Your task to perform on an android device: turn on location history Image 0: 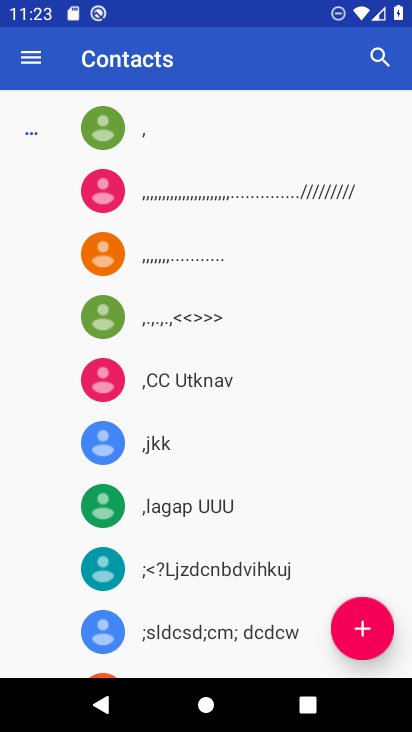
Step 0: press back button
Your task to perform on an android device: turn on location history Image 1: 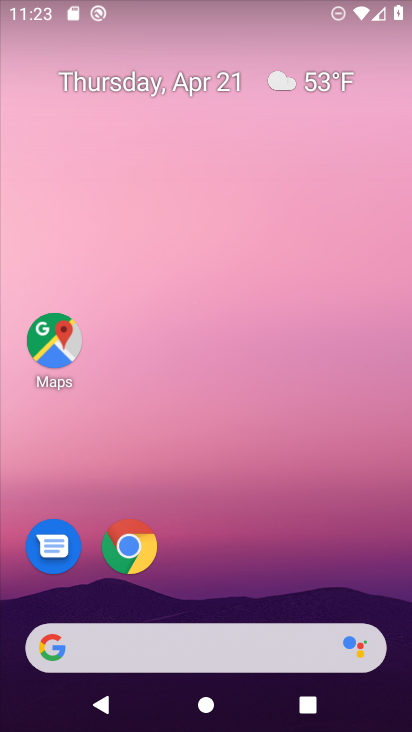
Step 1: drag from (201, 622) to (193, 356)
Your task to perform on an android device: turn on location history Image 2: 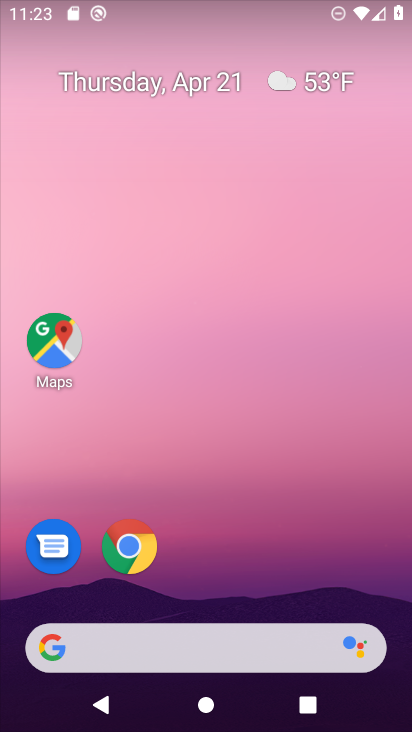
Step 2: drag from (219, 644) to (199, 165)
Your task to perform on an android device: turn on location history Image 3: 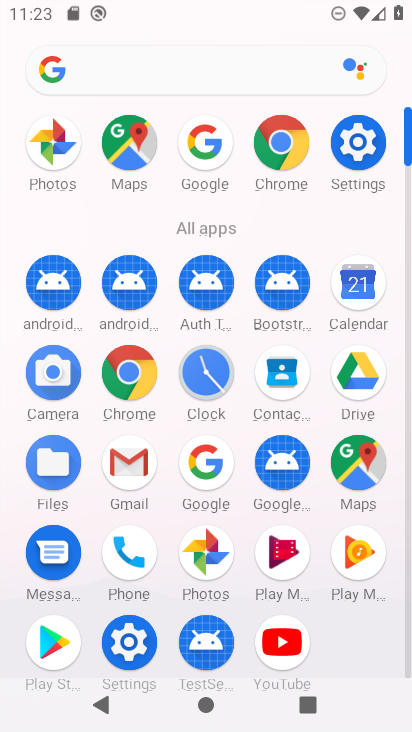
Step 3: click (359, 146)
Your task to perform on an android device: turn on location history Image 4: 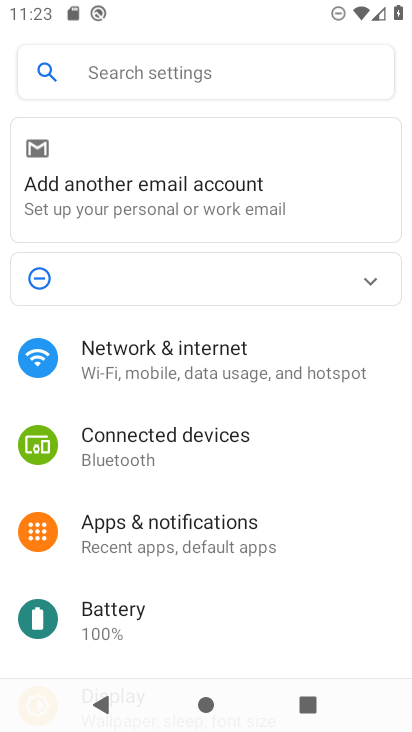
Step 4: drag from (253, 615) to (282, 287)
Your task to perform on an android device: turn on location history Image 5: 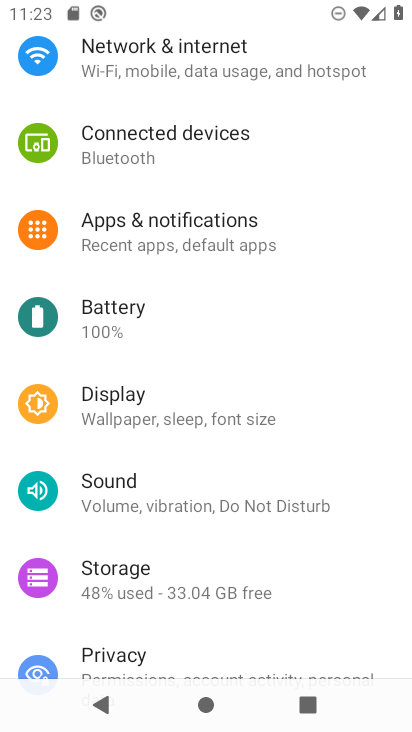
Step 5: drag from (151, 660) to (190, 337)
Your task to perform on an android device: turn on location history Image 6: 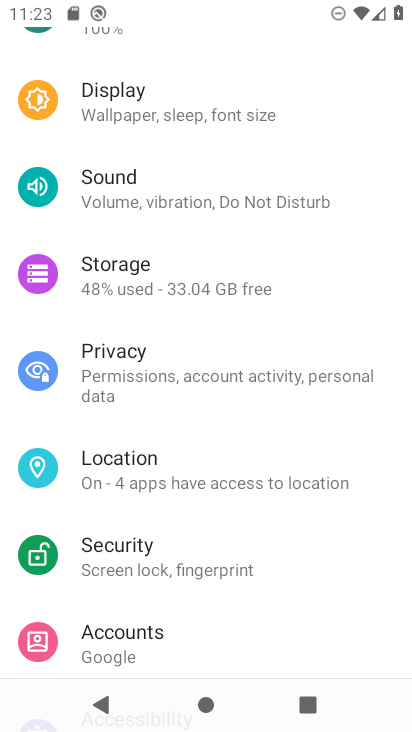
Step 6: click (142, 474)
Your task to perform on an android device: turn on location history Image 7: 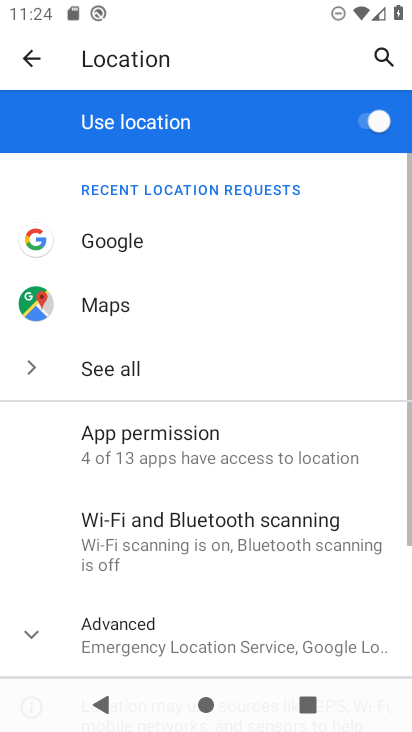
Step 7: task complete